Your task to perform on an android device: Go to network settings Image 0: 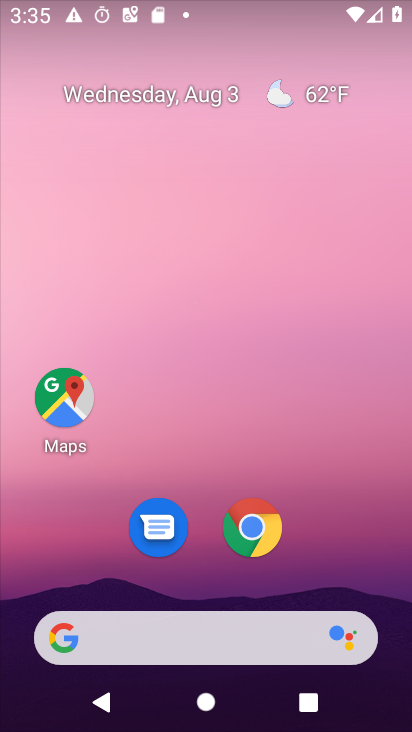
Step 0: drag from (325, 460) to (232, 54)
Your task to perform on an android device: Go to network settings Image 1: 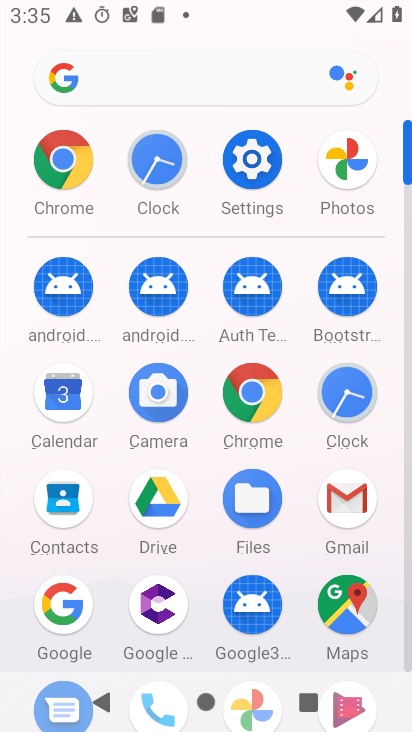
Step 1: click (241, 148)
Your task to perform on an android device: Go to network settings Image 2: 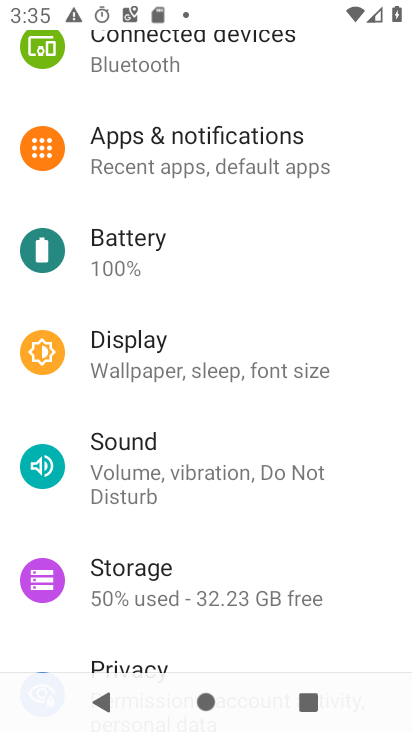
Step 2: drag from (320, 229) to (349, 591)
Your task to perform on an android device: Go to network settings Image 3: 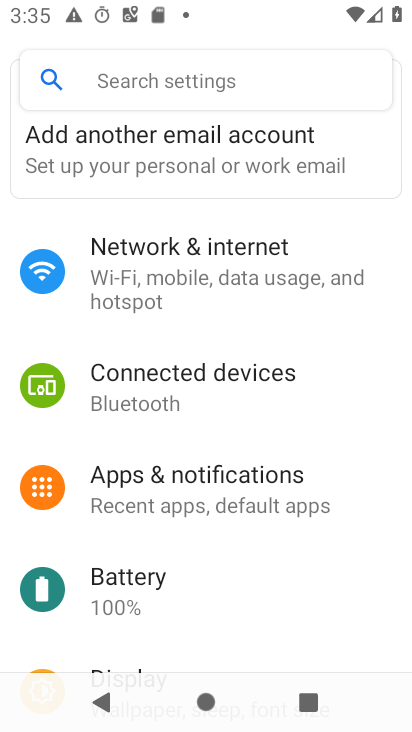
Step 3: click (196, 262)
Your task to perform on an android device: Go to network settings Image 4: 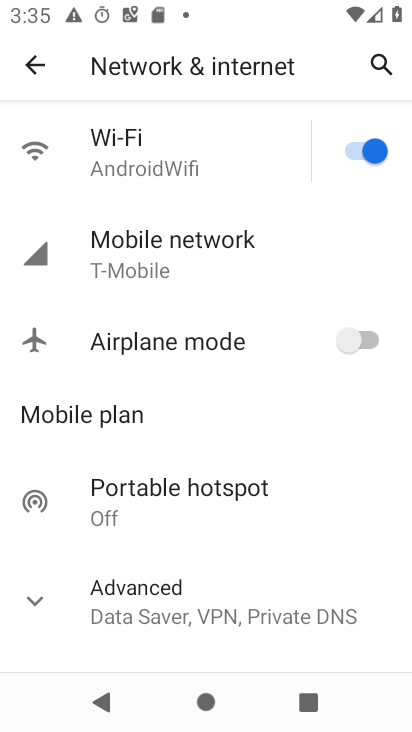
Step 4: task complete